Your task to perform on an android device: Google the capital of Uruguay Image 0: 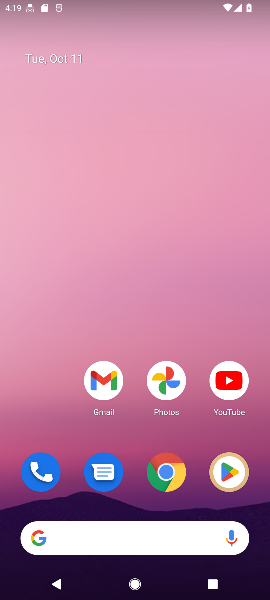
Step 0: click (153, 462)
Your task to perform on an android device: Google the capital of Uruguay Image 1: 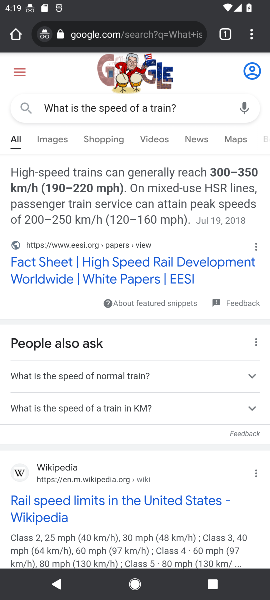
Step 1: click (97, 25)
Your task to perform on an android device: Google the capital of Uruguay Image 2: 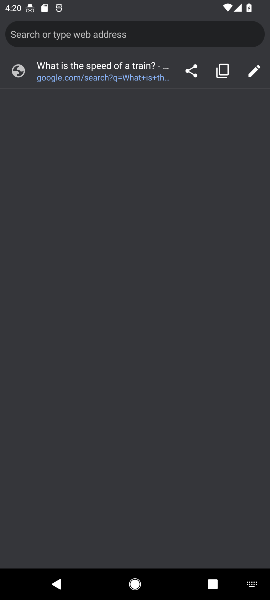
Step 2: type " capital of Uruguay"
Your task to perform on an android device: Google the capital of Uruguay Image 3: 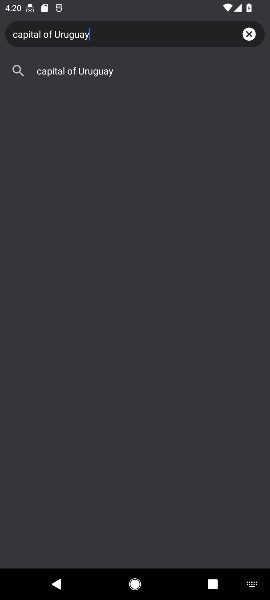
Step 3: click (131, 69)
Your task to perform on an android device: Google the capital of Uruguay Image 4: 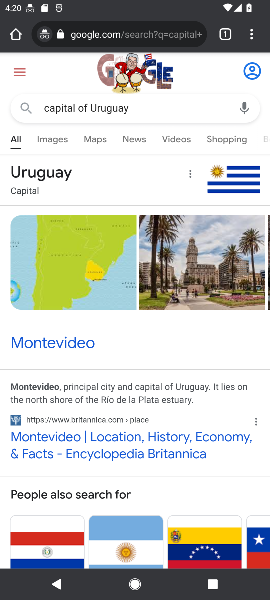
Step 4: task complete